Your task to perform on an android device: Open the calendar app, open the side menu, and click the "Day" option Image 0: 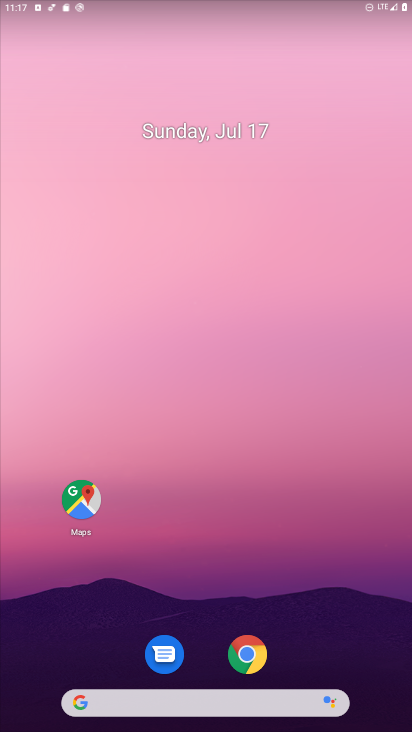
Step 0: drag from (206, 616) to (389, 178)
Your task to perform on an android device: Open the calendar app, open the side menu, and click the "Day" option Image 1: 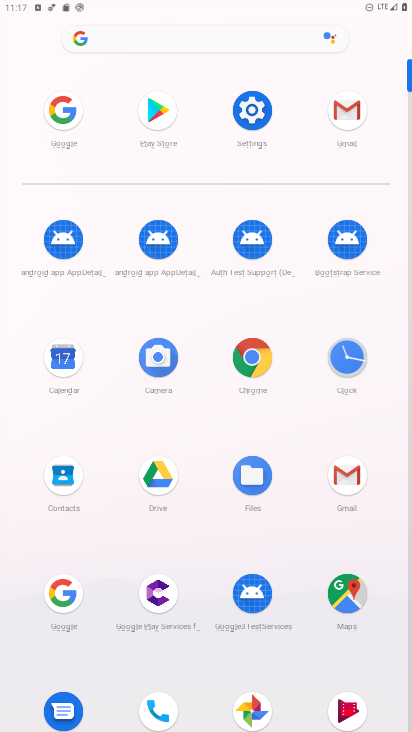
Step 1: click (58, 365)
Your task to perform on an android device: Open the calendar app, open the side menu, and click the "Day" option Image 2: 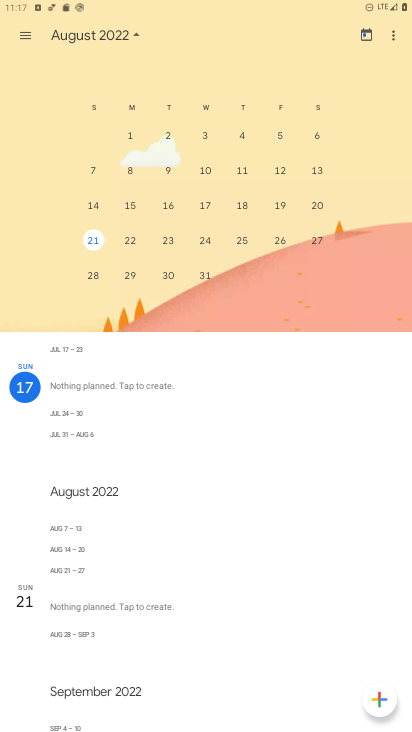
Step 2: click (28, 33)
Your task to perform on an android device: Open the calendar app, open the side menu, and click the "Day" option Image 3: 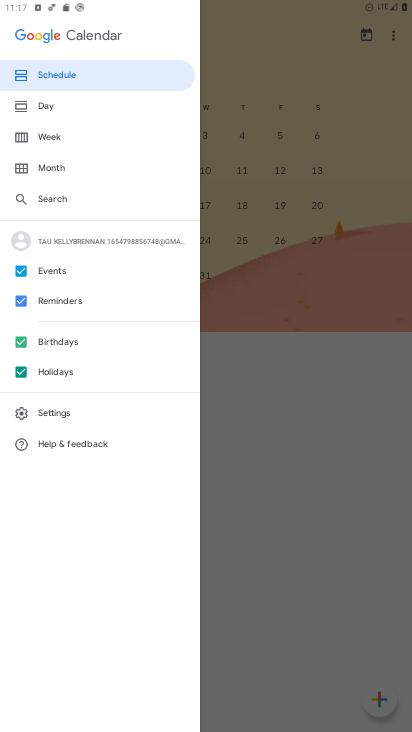
Step 3: click (71, 111)
Your task to perform on an android device: Open the calendar app, open the side menu, and click the "Day" option Image 4: 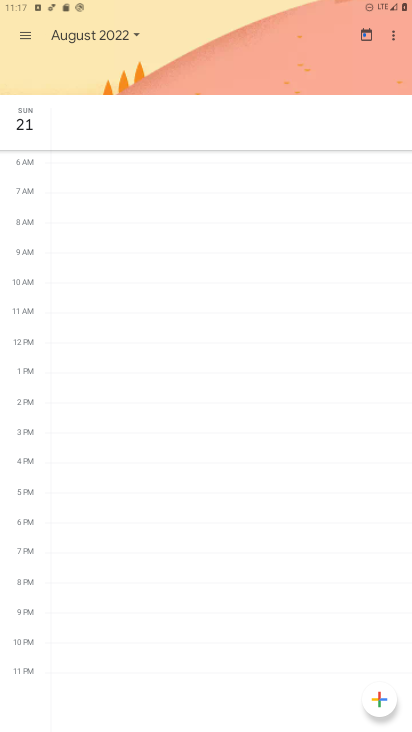
Step 4: task complete